Your task to perform on an android device: Open the phone app and click the voicemail tab. Image 0: 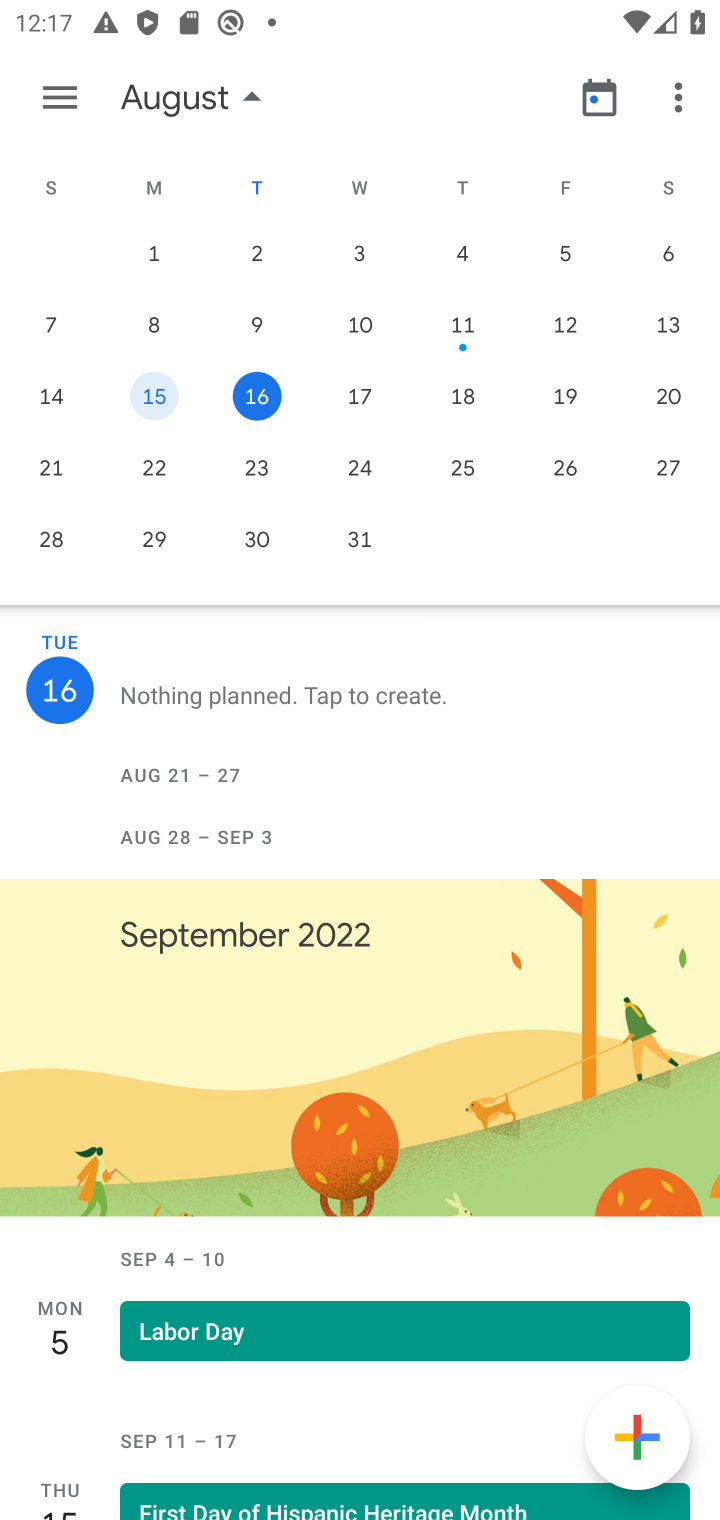
Step 0: press home button
Your task to perform on an android device: Open the phone app and click the voicemail tab. Image 1: 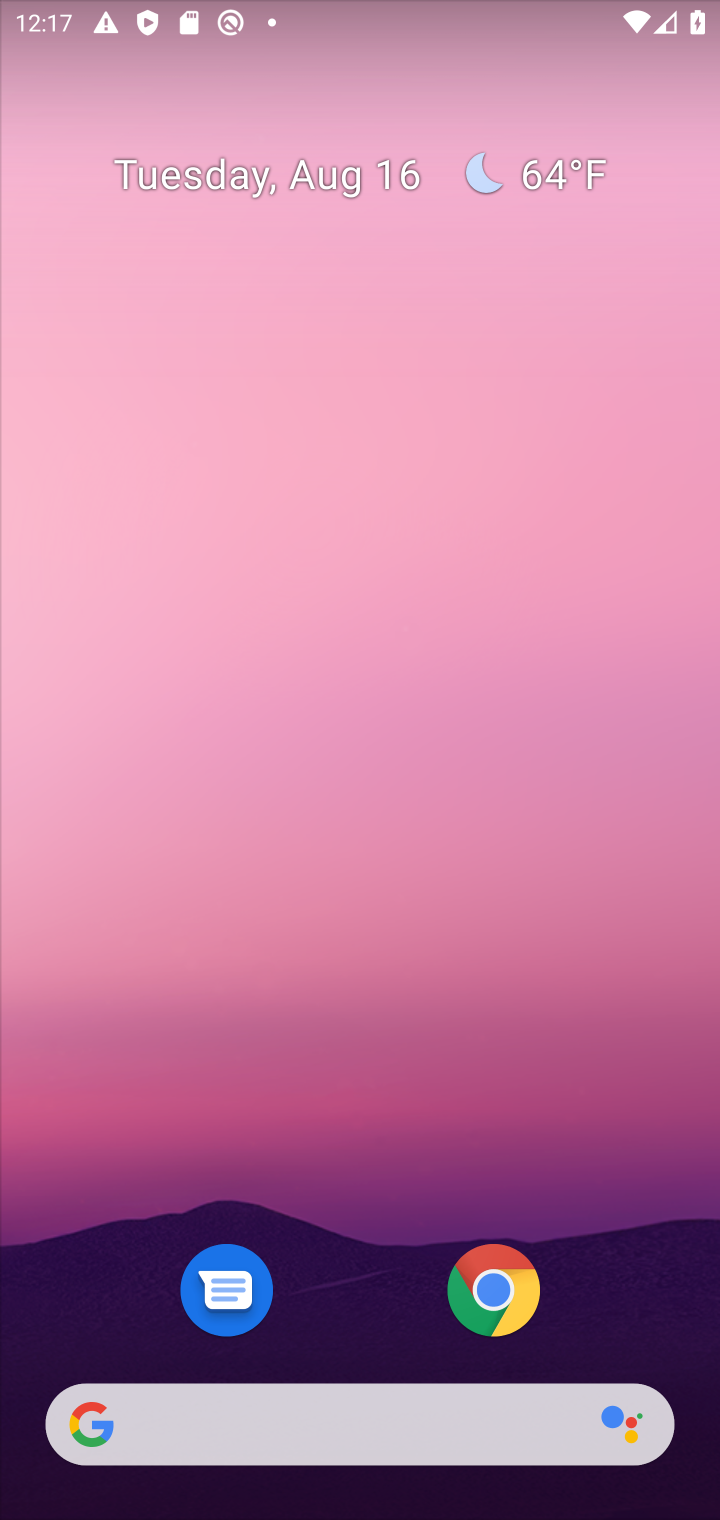
Step 1: drag from (71, 1241) to (486, 268)
Your task to perform on an android device: Open the phone app and click the voicemail tab. Image 2: 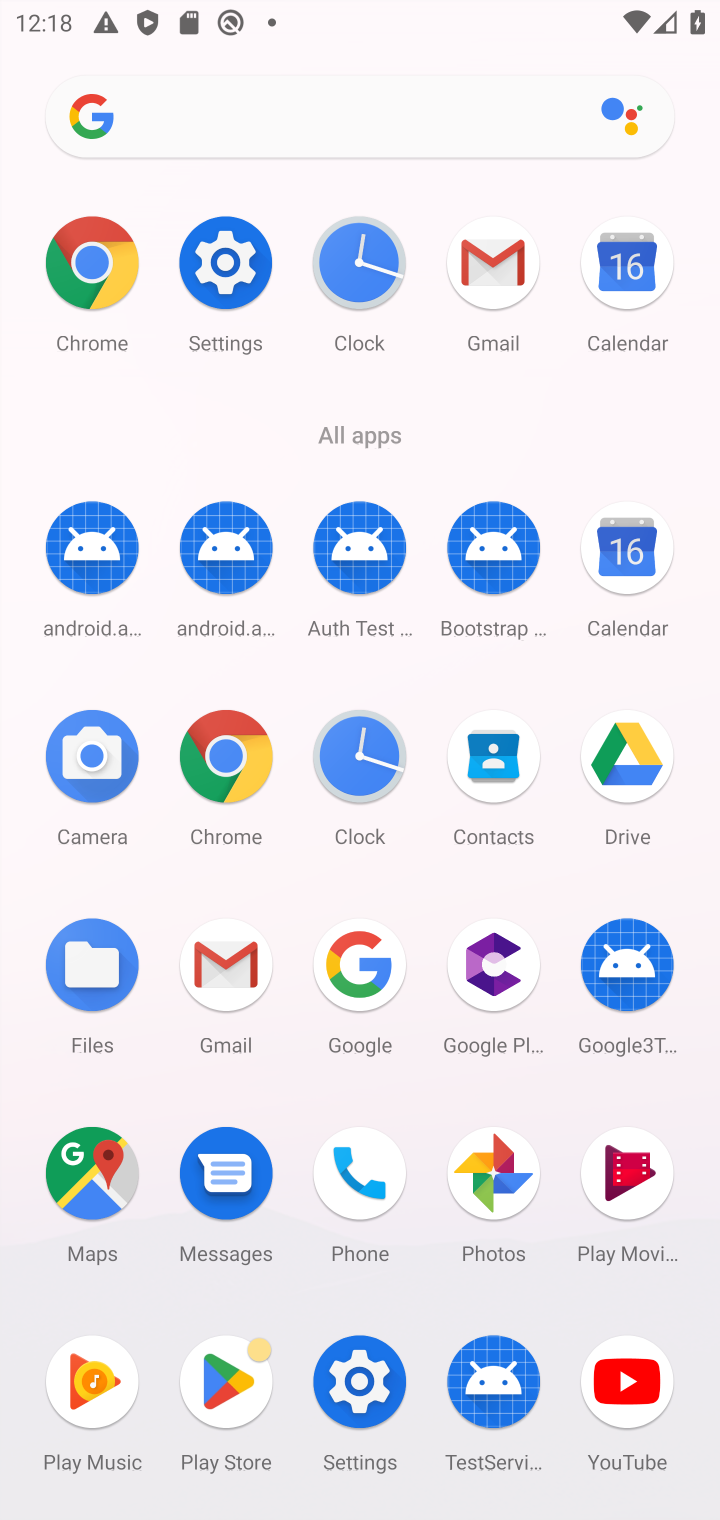
Step 2: click (346, 1180)
Your task to perform on an android device: Open the phone app and click the voicemail tab. Image 3: 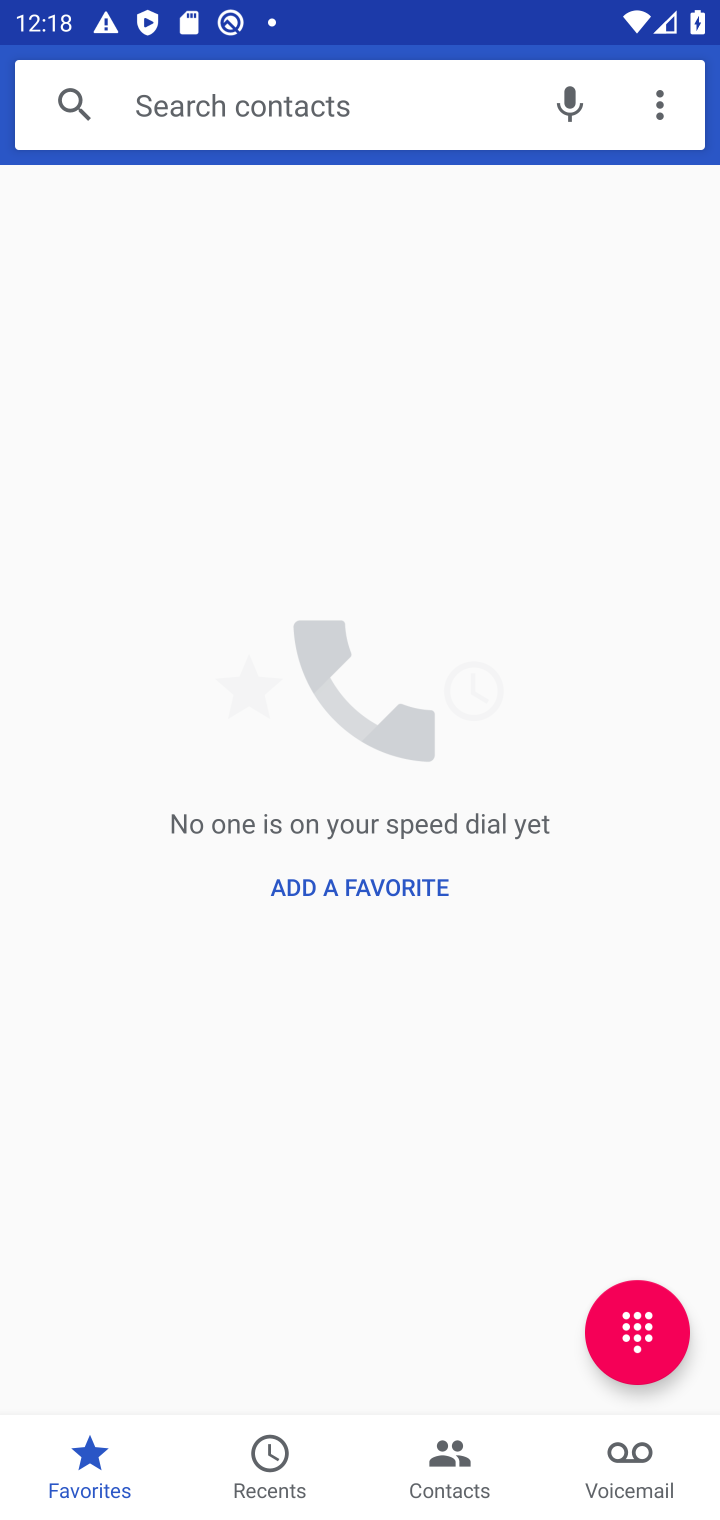
Step 3: click (624, 1444)
Your task to perform on an android device: Open the phone app and click the voicemail tab. Image 4: 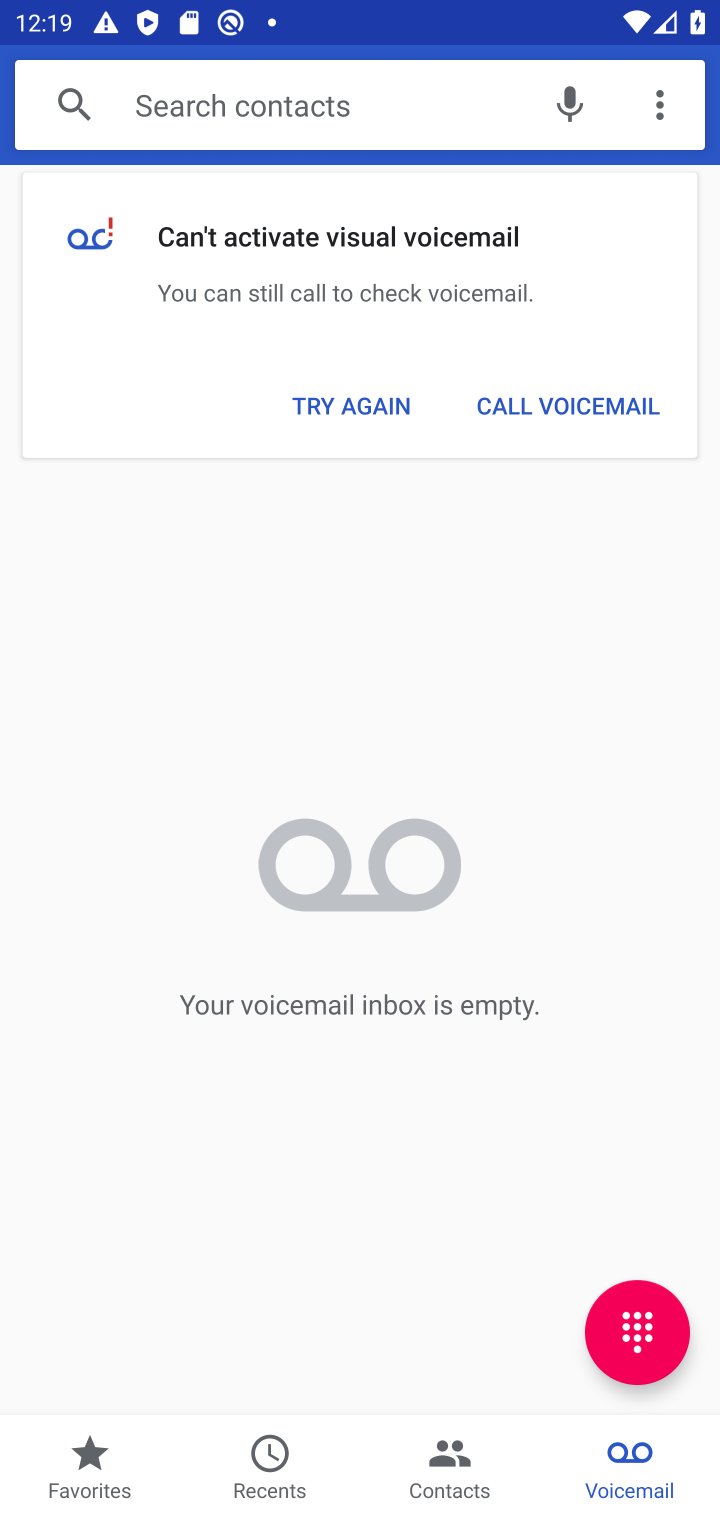
Step 4: task complete